Your task to perform on an android device: turn on priority inbox in the gmail app Image 0: 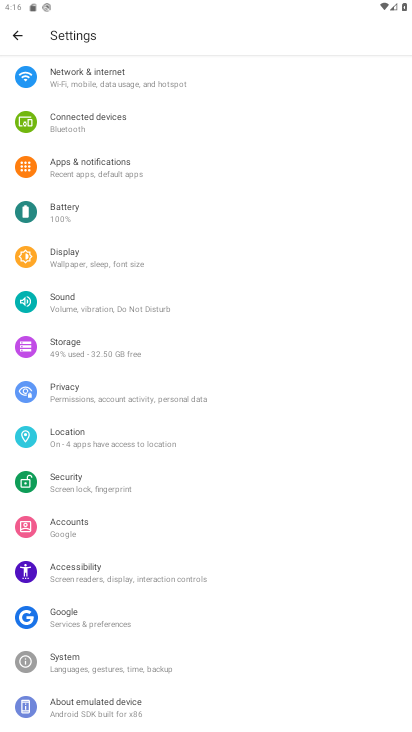
Step 0: press home button
Your task to perform on an android device: turn on priority inbox in the gmail app Image 1: 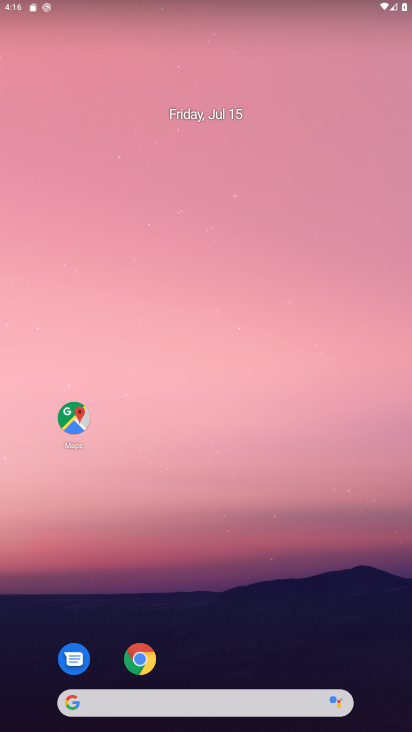
Step 1: drag from (182, 641) to (255, 42)
Your task to perform on an android device: turn on priority inbox in the gmail app Image 2: 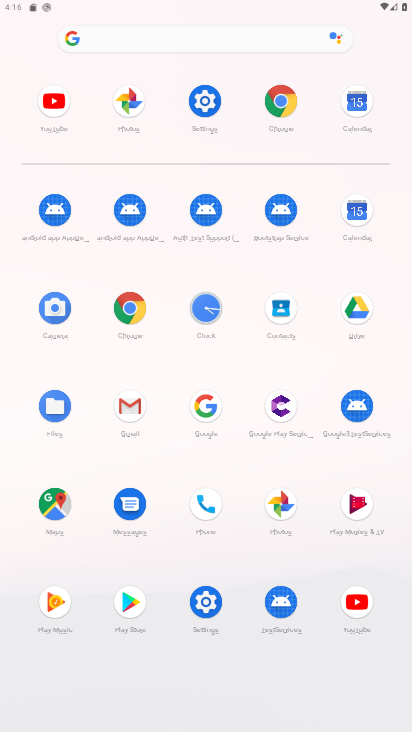
Step 2: click (137, 416)
Your task to perform on an android device: turn on priority inbox in the gmail app Image 3: 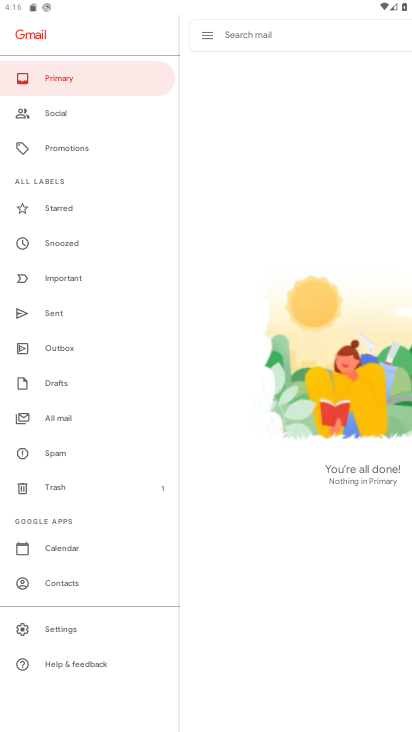
Step 3: click (59, 625)
Your task to perform on an android device: turn on priority inbox in the gmail app Image 4: 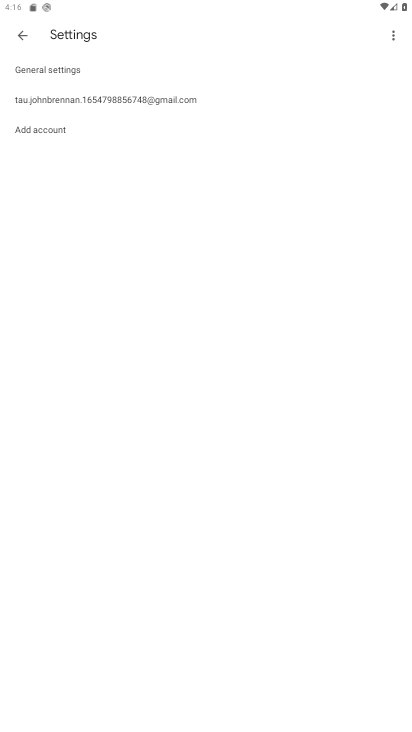
Step 4: click (73, 99)
Your task to perform on an android device: turn on priority inbox in the gmail app Image 5: 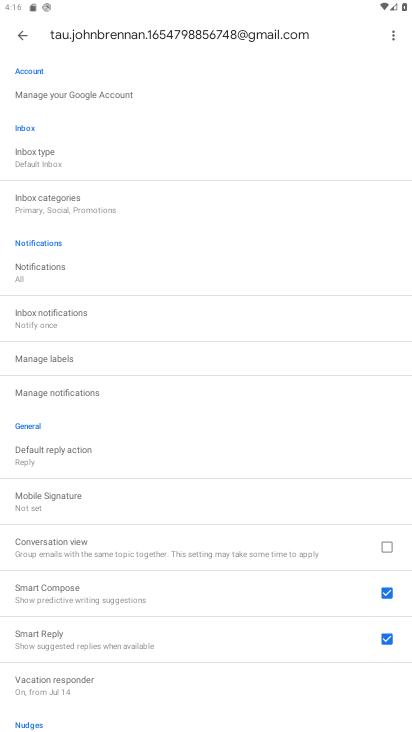
Step 5: click (45, 152)
Your task to perform on an android device: turn on priority inbox in the gmail app Image 6: 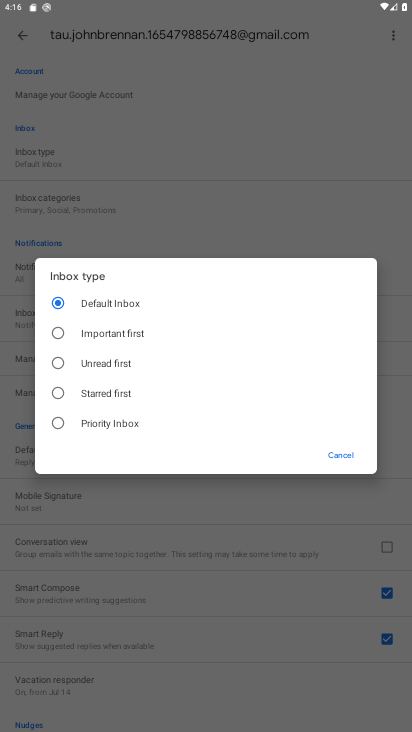
Step 6: click (60, 424)
Your task to perform on an android device: turn on priority inbox in the gmail app Image 7: 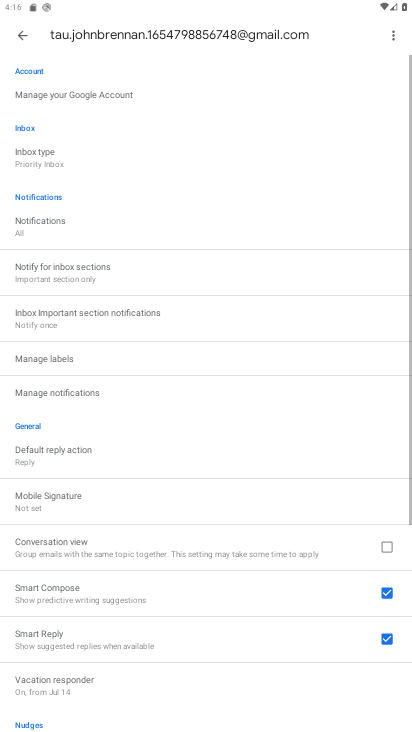
Step 7: task complete